Your task to perform on an android device: add a contact Image 0: 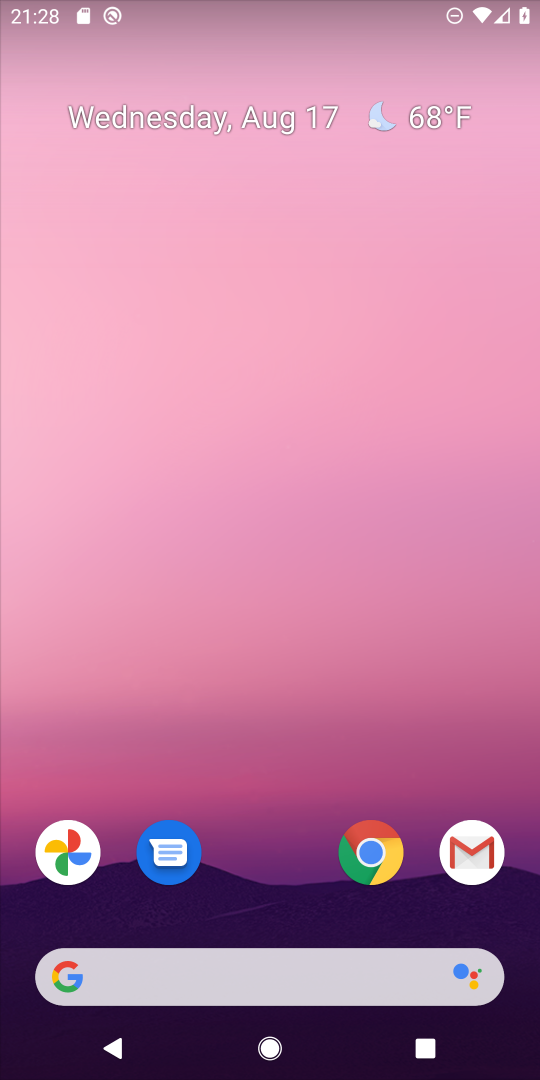
Step 0: drag from (287, 920) to (267, 163)
Your task to perform on an android device: add a contact Image 1: 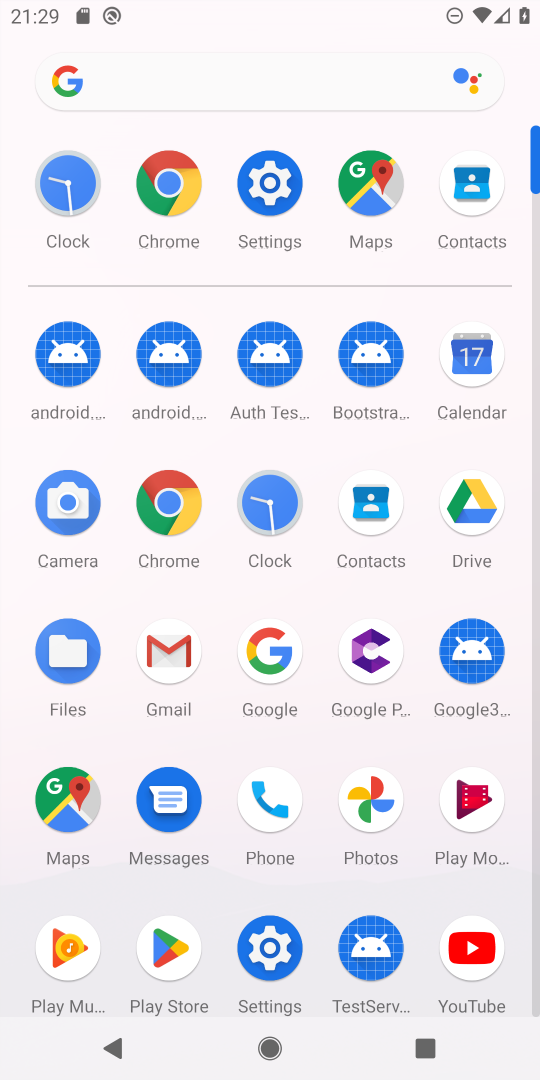
Step 1: click (362, 519)
Your task to perform on an android device: add a contact Image 2: 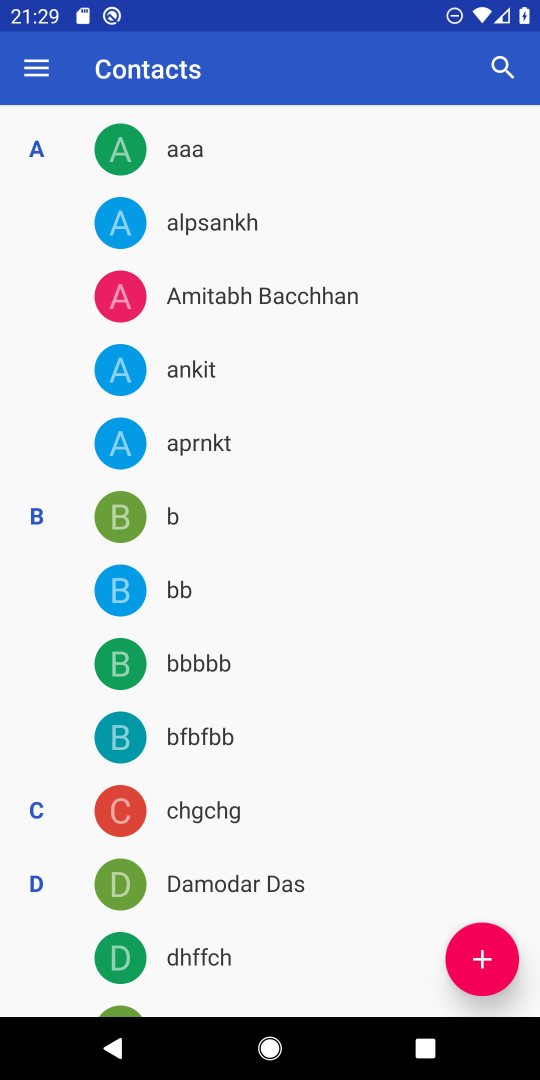
Step 2: click (476, 953)
Your task to perform on an android device: add a contact Image 3: 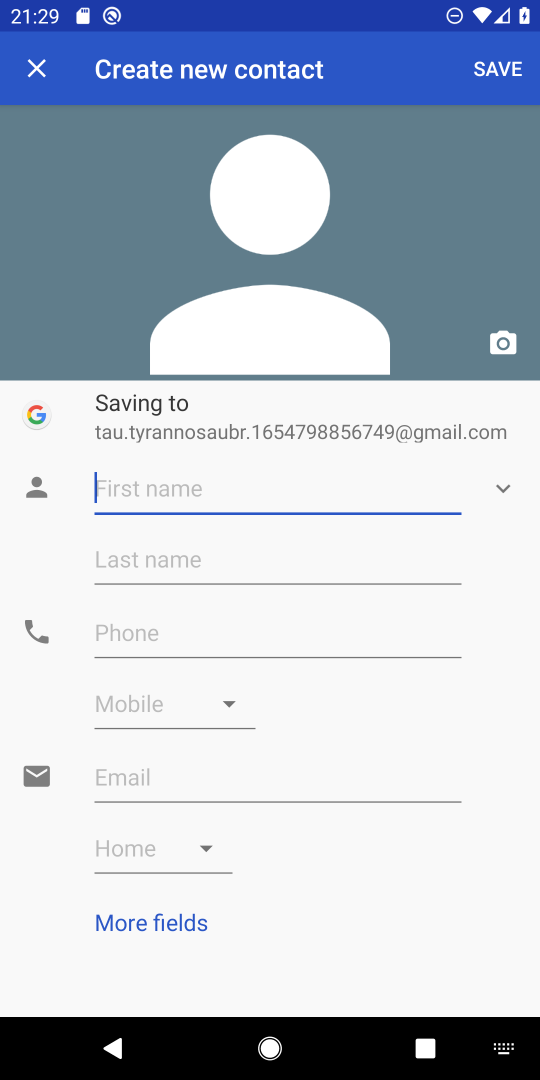
Step 3: type "v"
Your task to perform on an android device: add a contact Image 4: 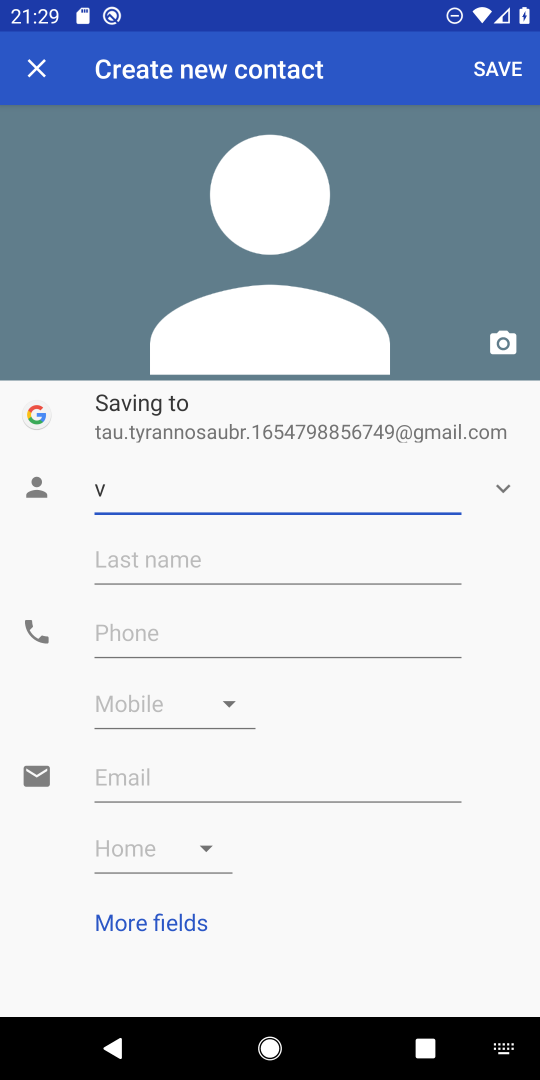
Step 4: click (229, 629)
Your task to perform on an android device: add a contact Image 5: 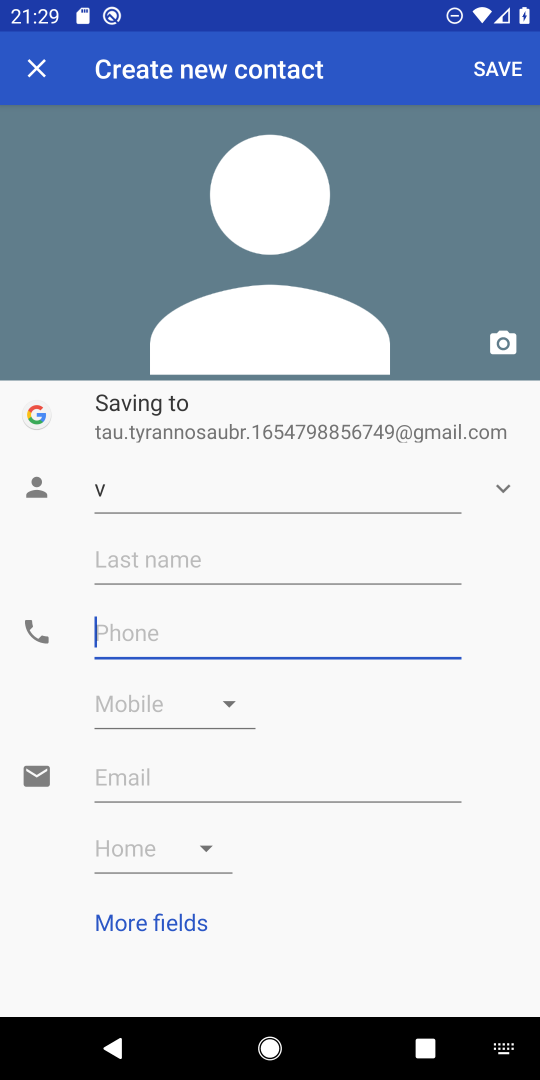
Step 5: type "0"
Your task to perform on an android device: add a contact Image 6: 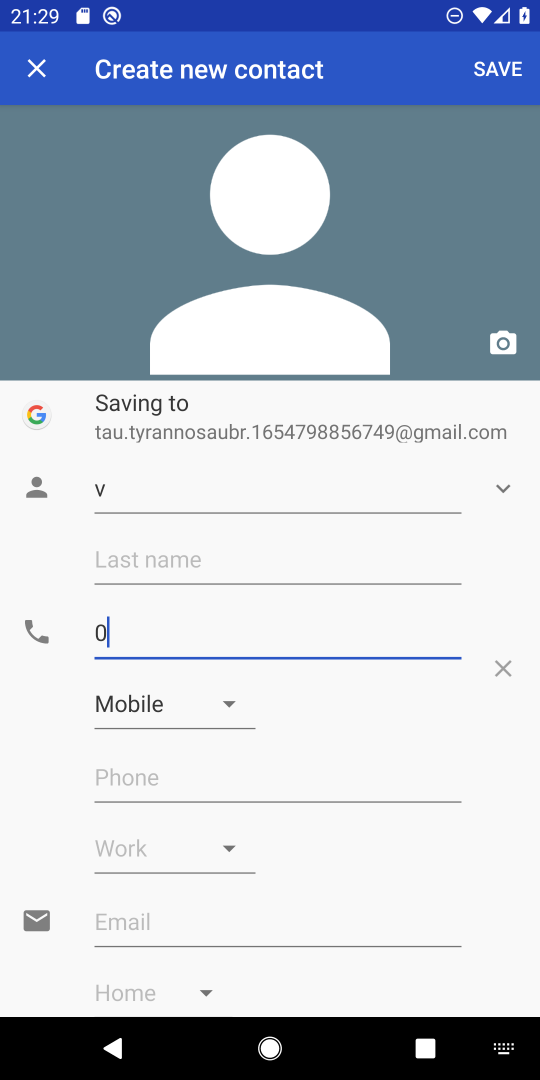
Step 6: click (484, 61)
Your task to perform on an android device: add a contact Image 7: 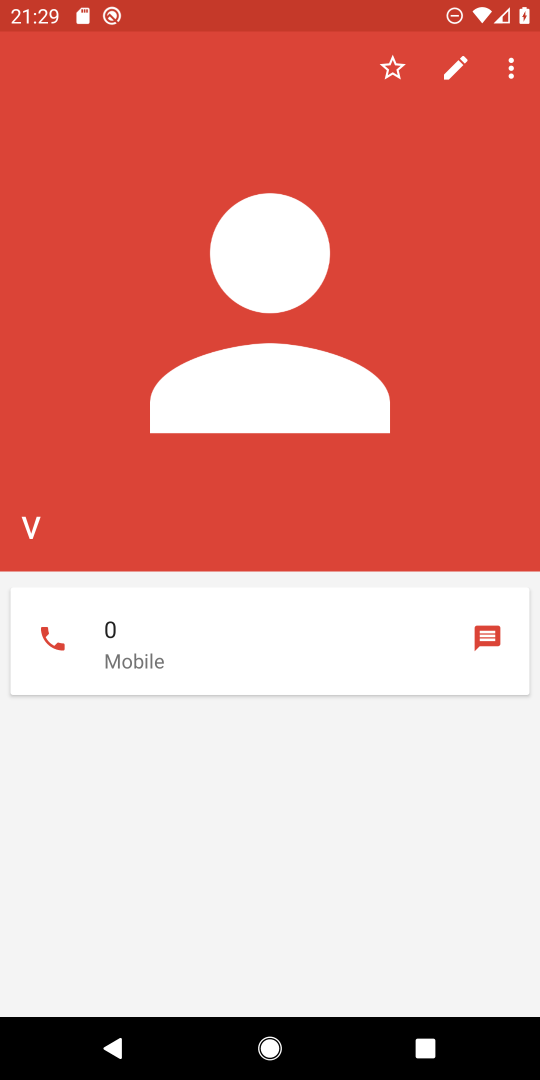
Step 7: task complete